Your task to perform on an android device: Open Google Chrome and open the bookmarks view Image 0: 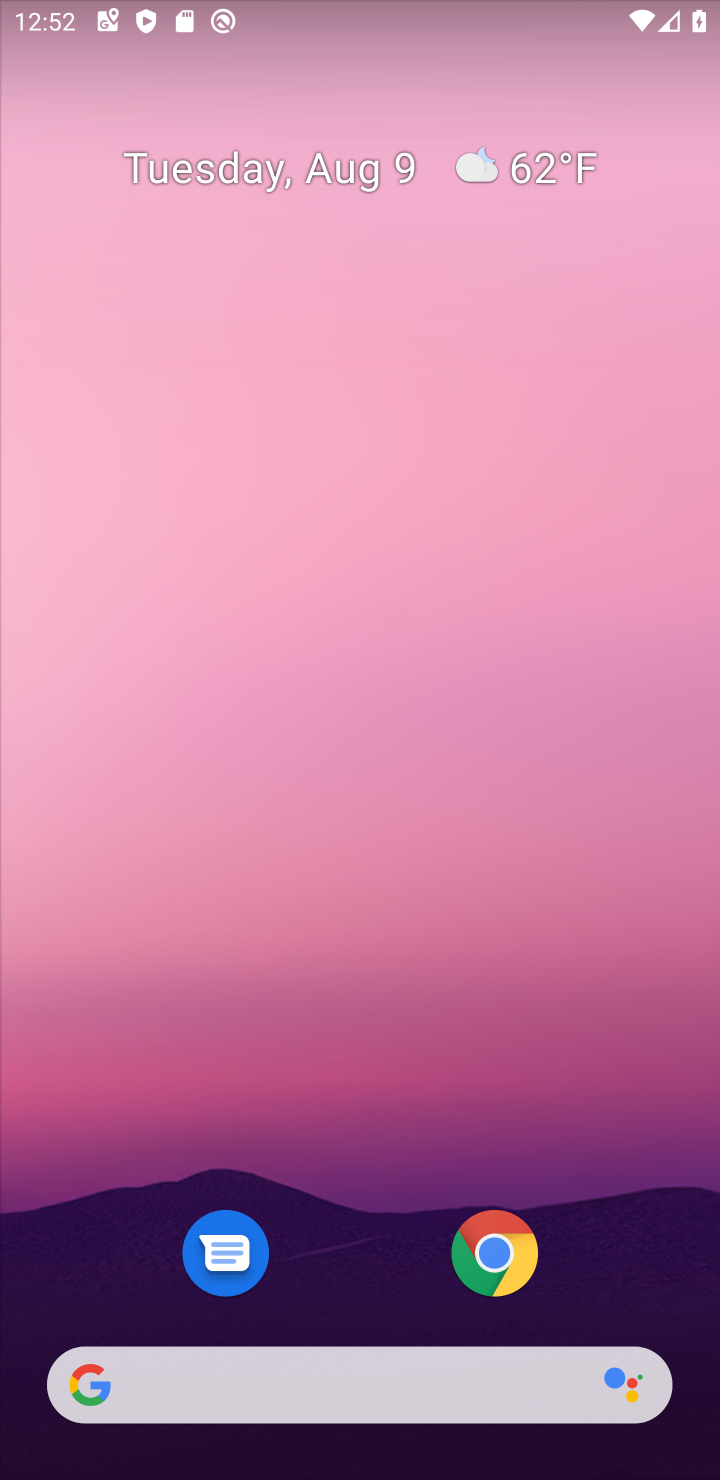
Step 0: drag from (627, 1286) to (401, 202)
Your task to perform on an android device: Open Google Chrome and open the bookmarks view Image 1: 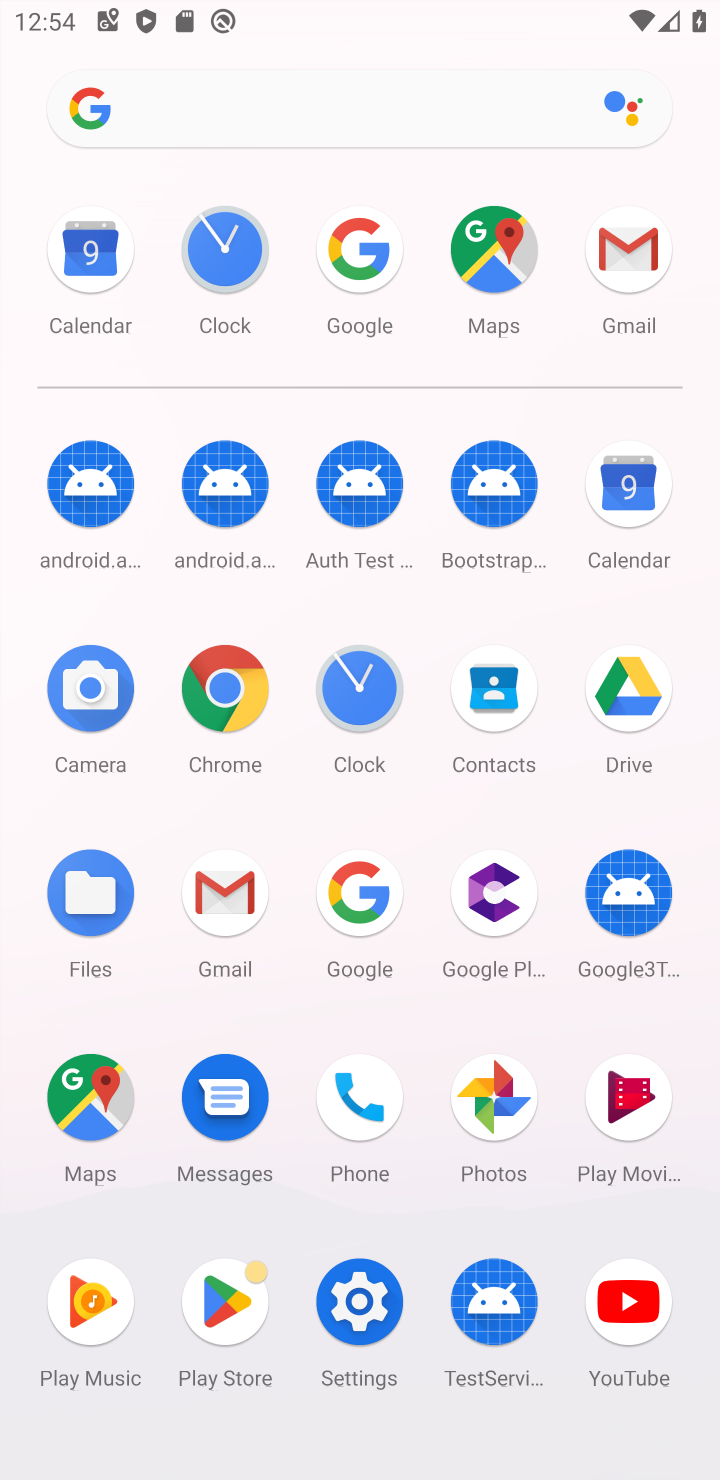
Step 1: click (214, 716)
Your task to perform on an android device: Open Google Chrome and open the bookmarks view Image 2: 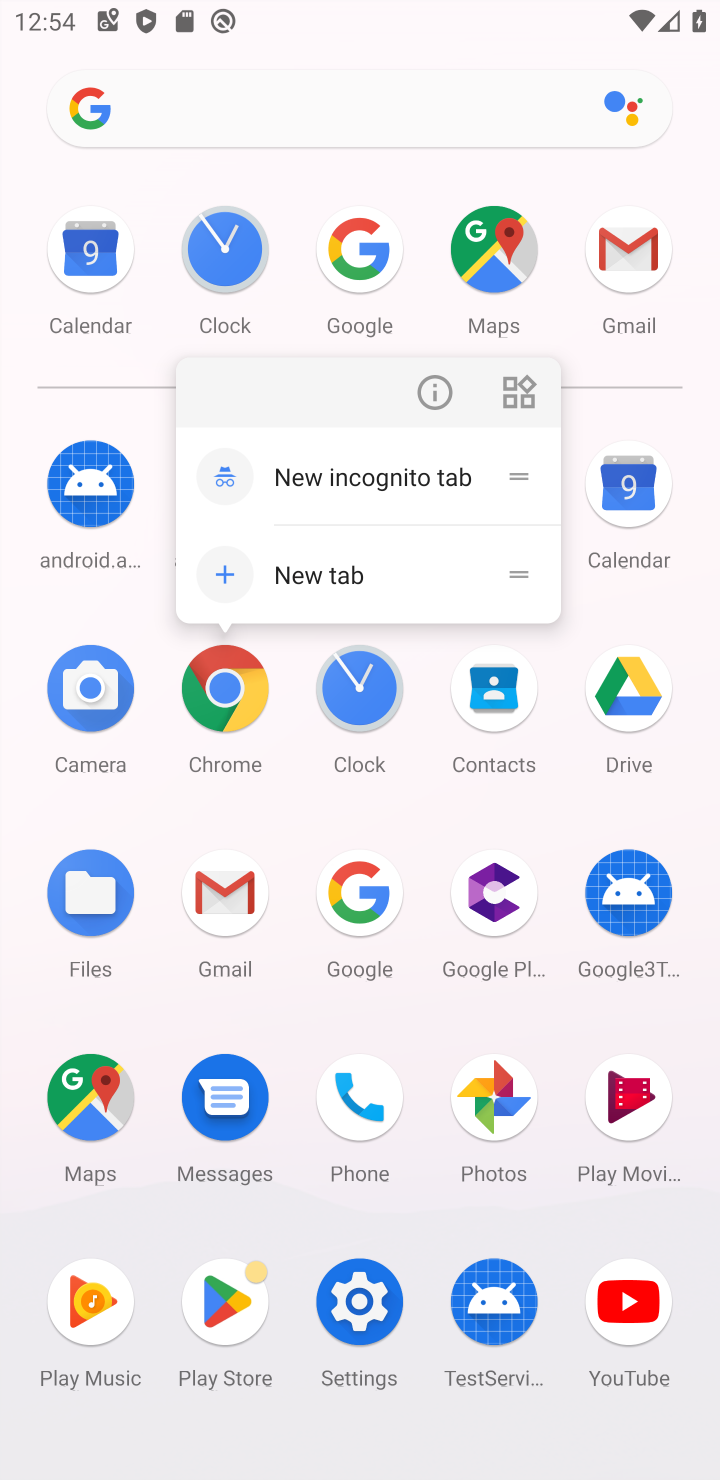
Step 2: click (209, 702)
Your task to perform on an android device: Open Google Chrome and open the bookmarks view Image 3: 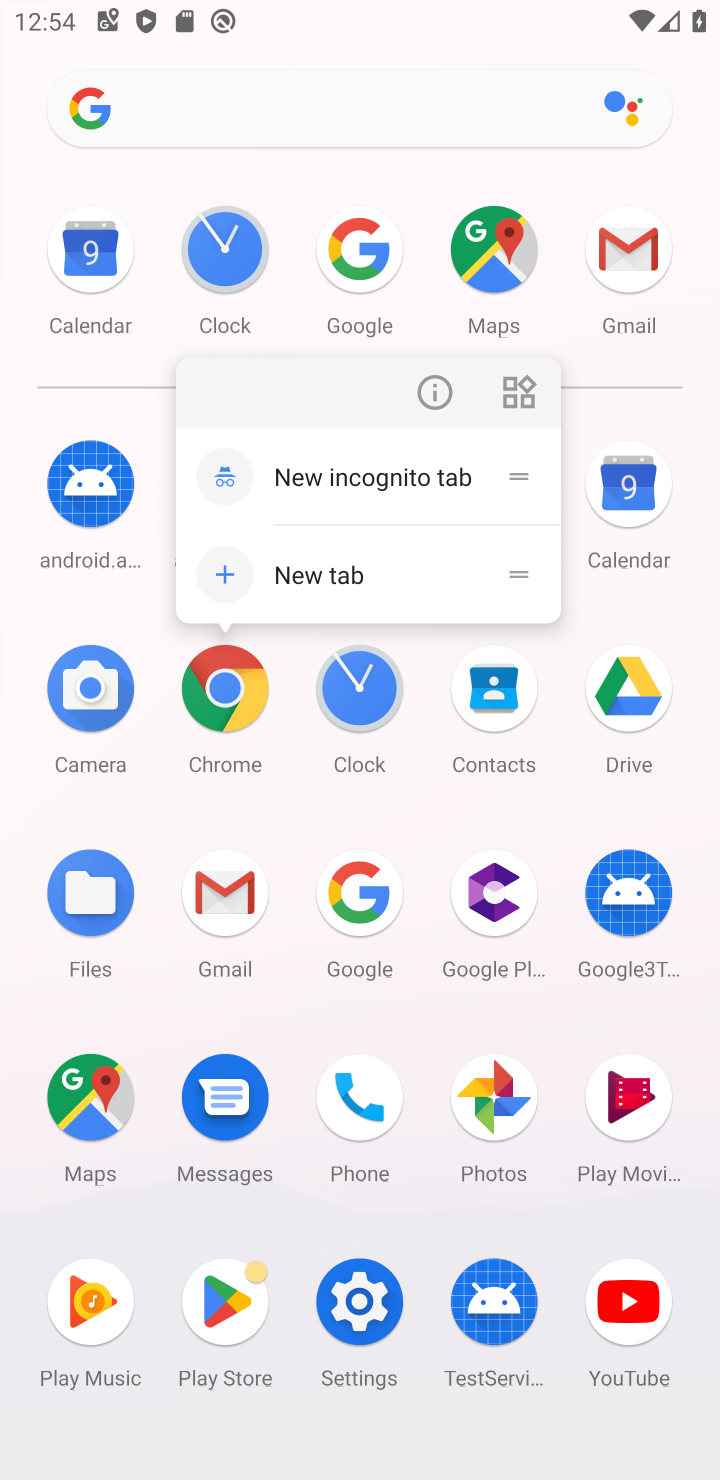
Step 3: click (209, 702)
Your task to perform on an android device: Open Google Chrome and open the bookmarks view Image 4: 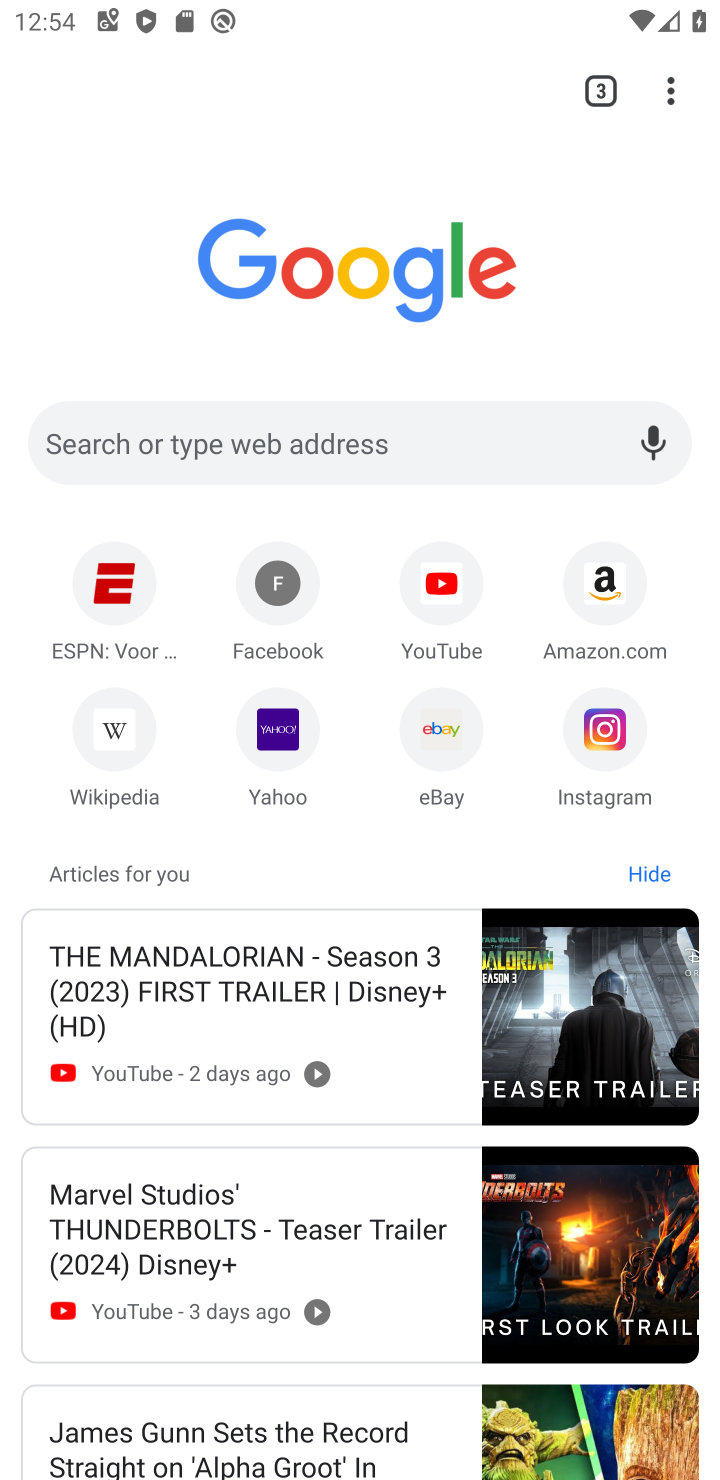
Step 4: click (675, 78)
Your task to perform on an android device: Open Google Chrome and open the bookmarks view Image 5: 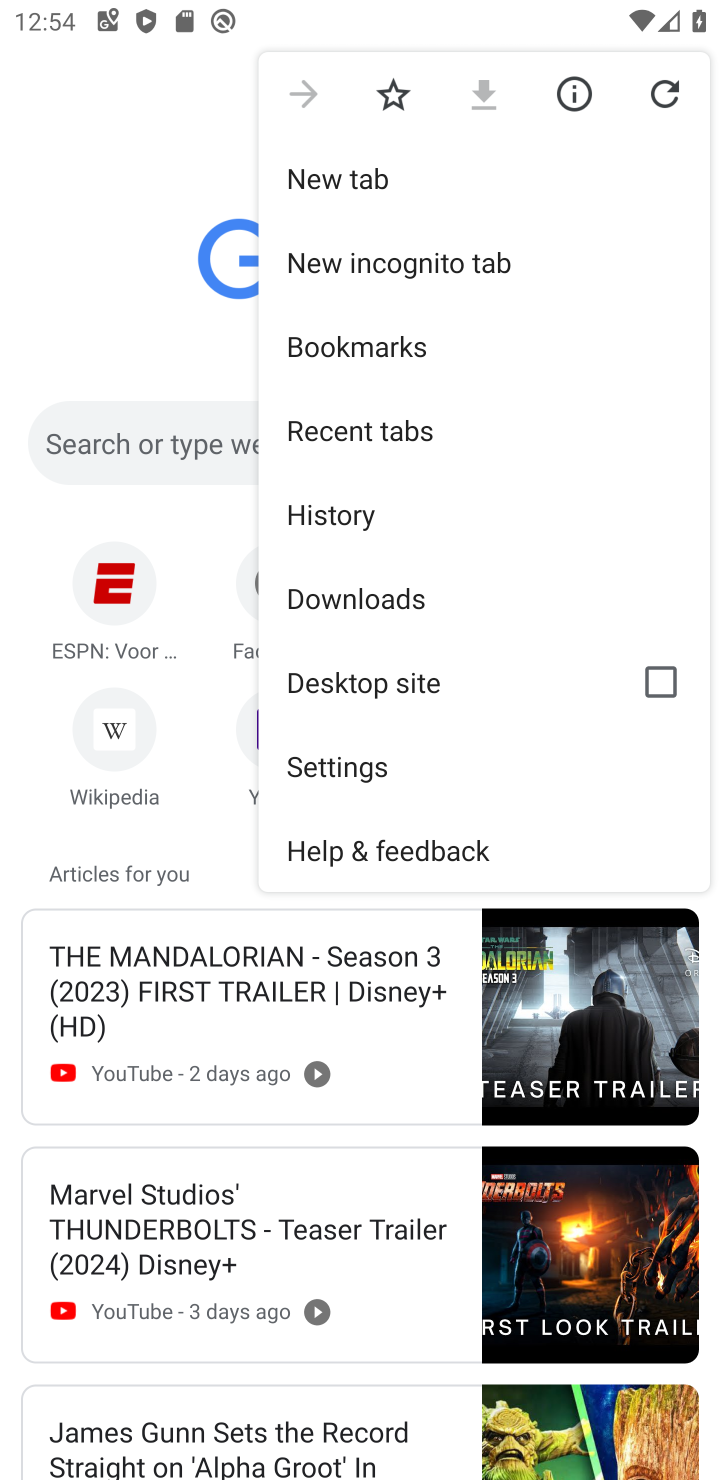
Step 5: click (397, 349)
Your task to perform on an android device: Open Google Chrome and open the bookmarks view Image 6: 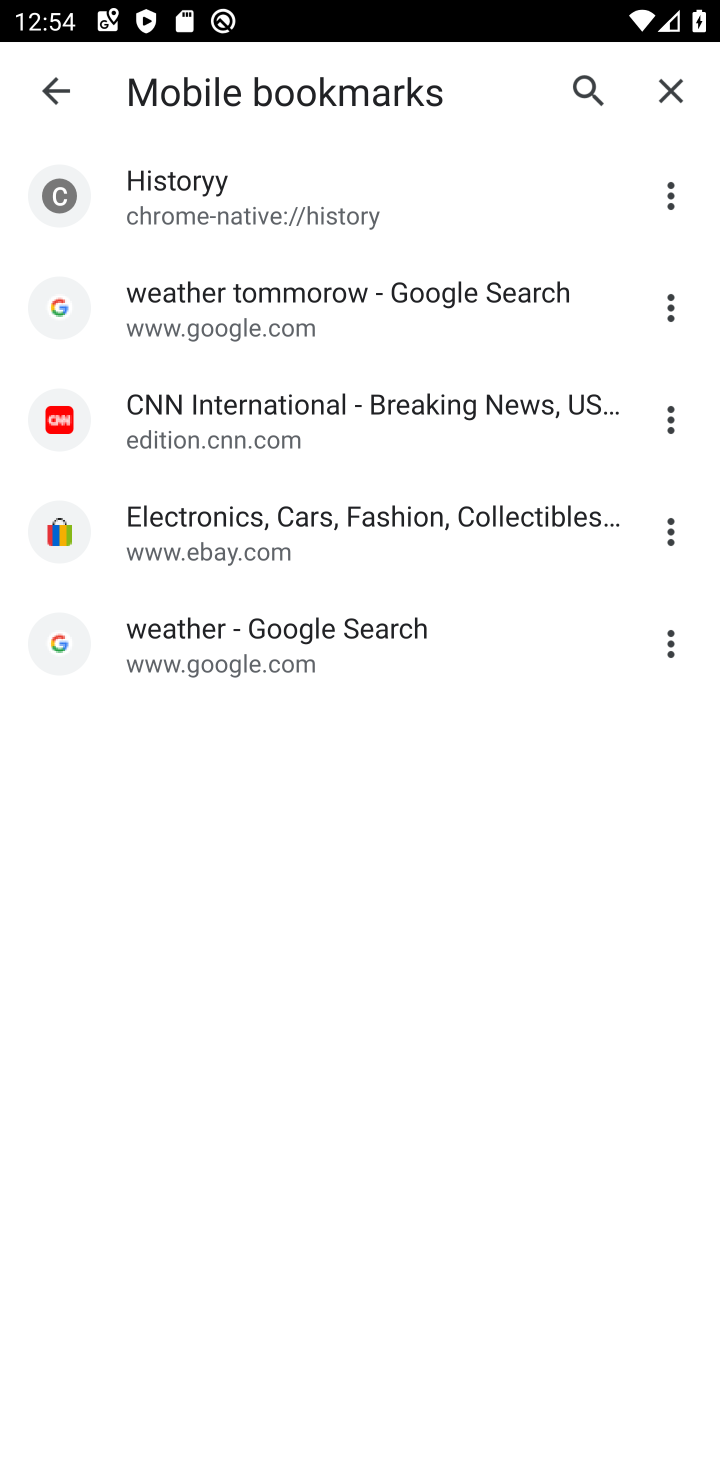
Step 6: task complete